Your task to perform on an android device: install app "LiveIn - Share Your Moment" Image 0: 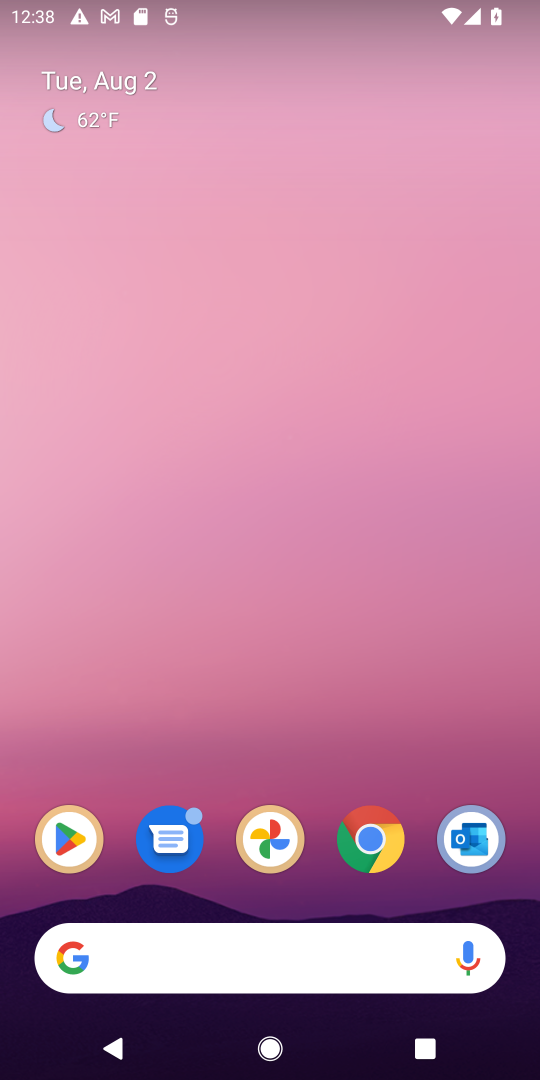
Step 0: click (82, 838)
Your task to perform on an android device: install app "LiveIn - Share Your Moment" Image 1: 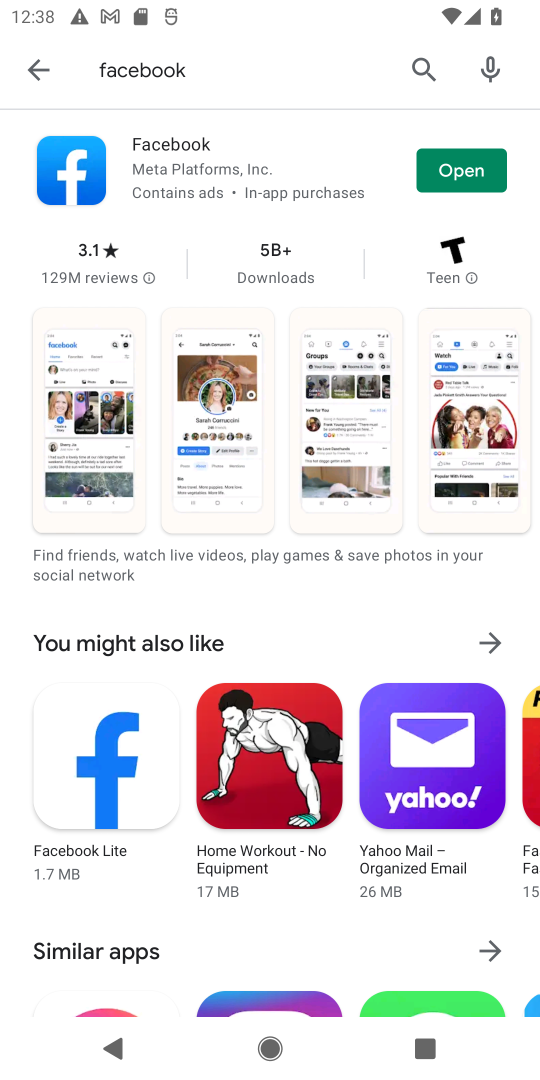
Step 1: click (435, 60)
Your task to perform on an android device: install app "LiveIn - Share Your Moment" Image 2: 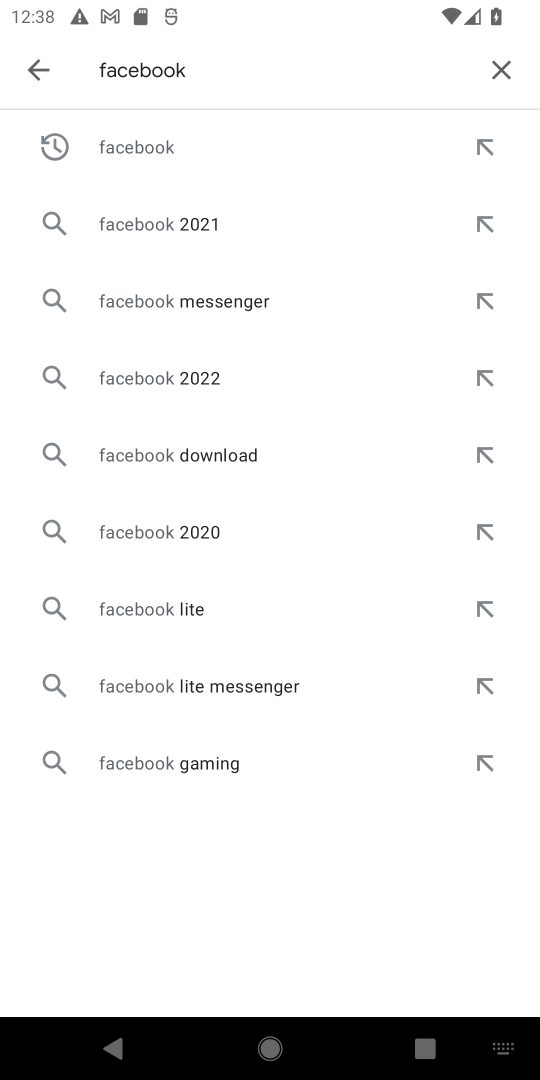
Step 2: click (507, 69)
Your task to perform on an android device: install app "LiveIn - Share Your Moment" Image 3: 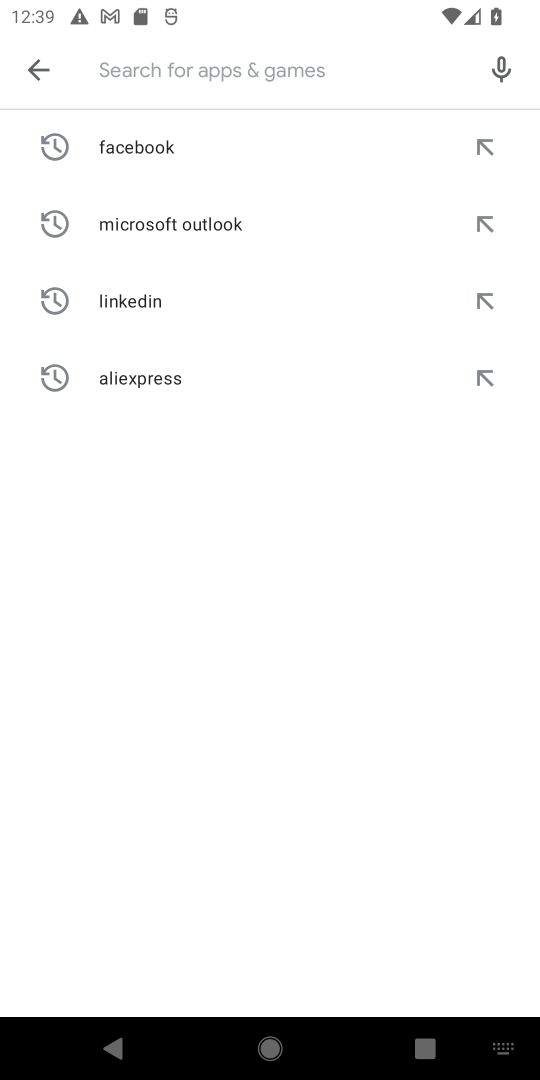
Step 3: type "liveln"
Your task to perform on an android device: install app "LiveIn - Share Your Moment" Image 4: 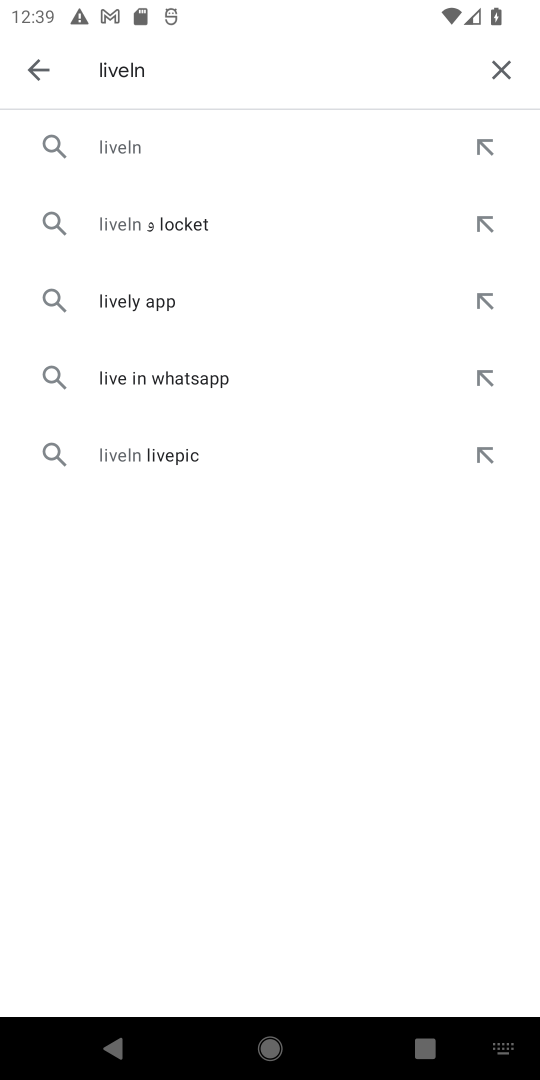
Step 4: click (187, 143)
Your task to perform on an android device: install app "LiveIn - Share Your Moment" Image 5: 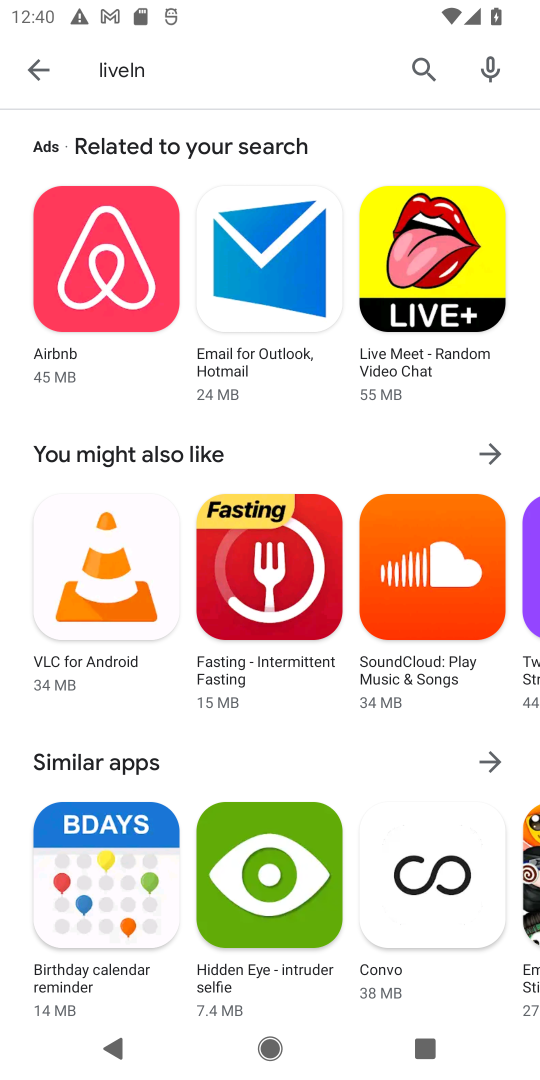
Step 5: task complete